Your task to perform on an android device: Go to notification settings Image 0: 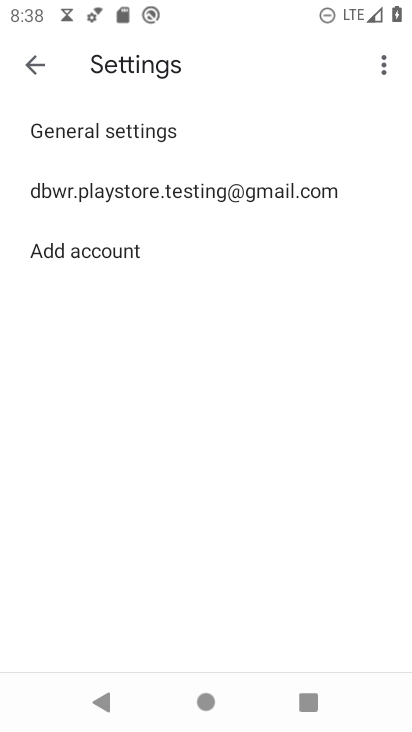
Step 0: press home button
Your task to perform on an android device: Go to notification settings Image 1: 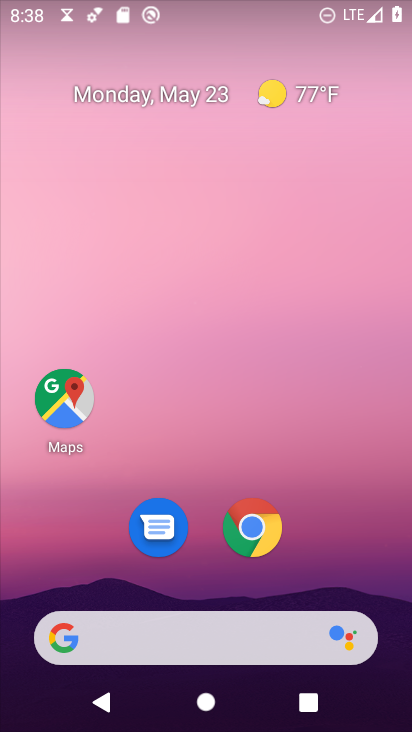
Step 1: drag from (224, 667) to (241, 148)
Your task to perform on an android device: Go to notification settings Image 2: 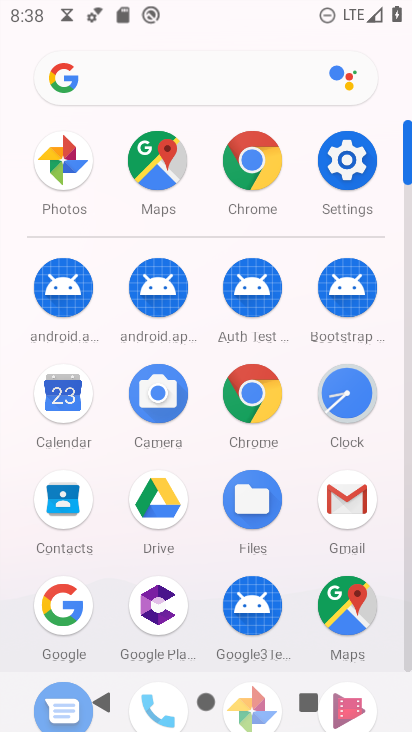
Step 2: click (345, 164)
Your task to perform on an android device: Go to notification settings Image 3: 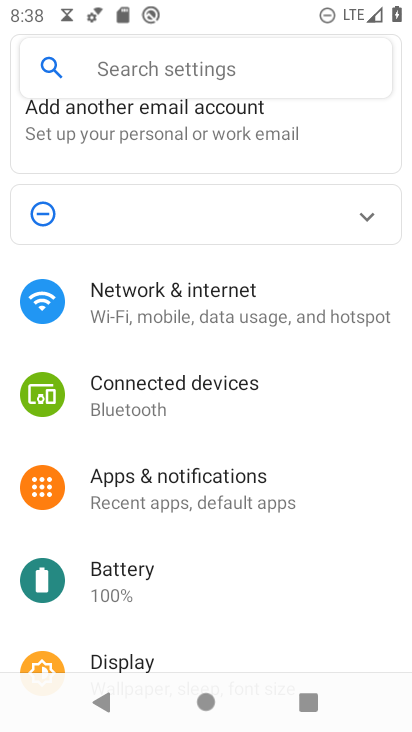
Step 3: click (170, 79)
Your task to perform on an android device: Go to notification settings Image 4: 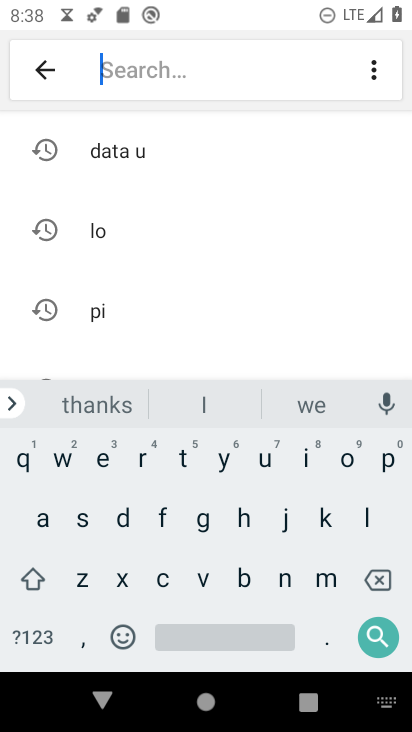
Step 4: click (287, 574)
Your task to perform on an android device: Go to notification settings Image 5: 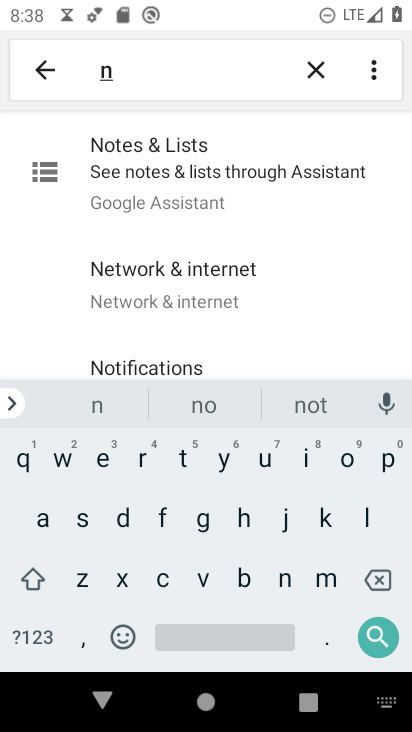
Step 5: click (338, 460)
Your task to perform on an android device: Go to notification settings Image 6: 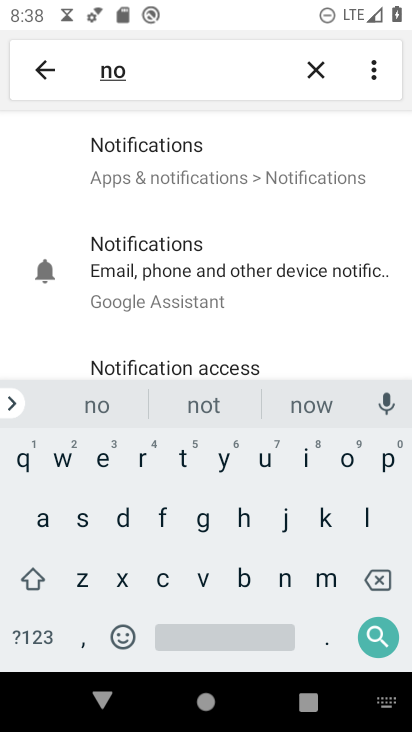
Step 6: click (155, 144)
Your task to perform on an android device: Go to notification settings Image 7: 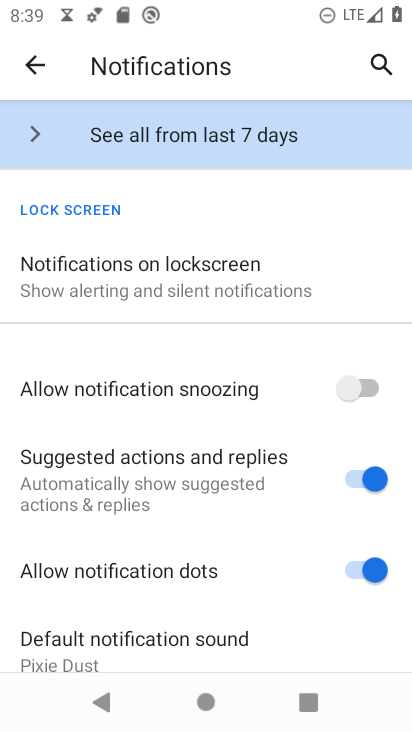
Step 7: click (152, 266)
Your task to perform on an android device: Go to notification settings Image 8: 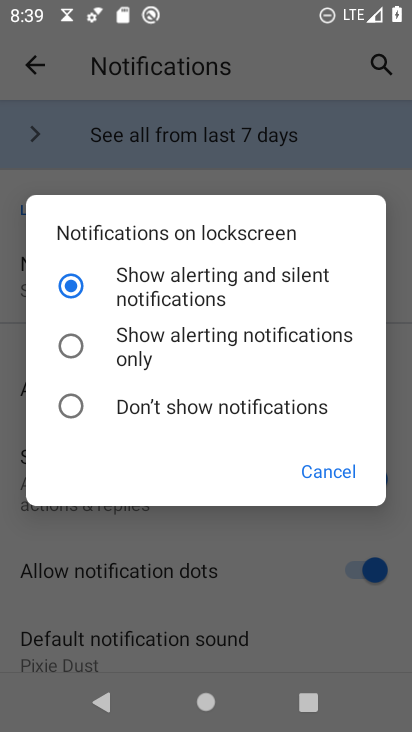
Step 8: task complete